Your task to perform on an android device: delete the emails in spam in the gmail app Image 0: 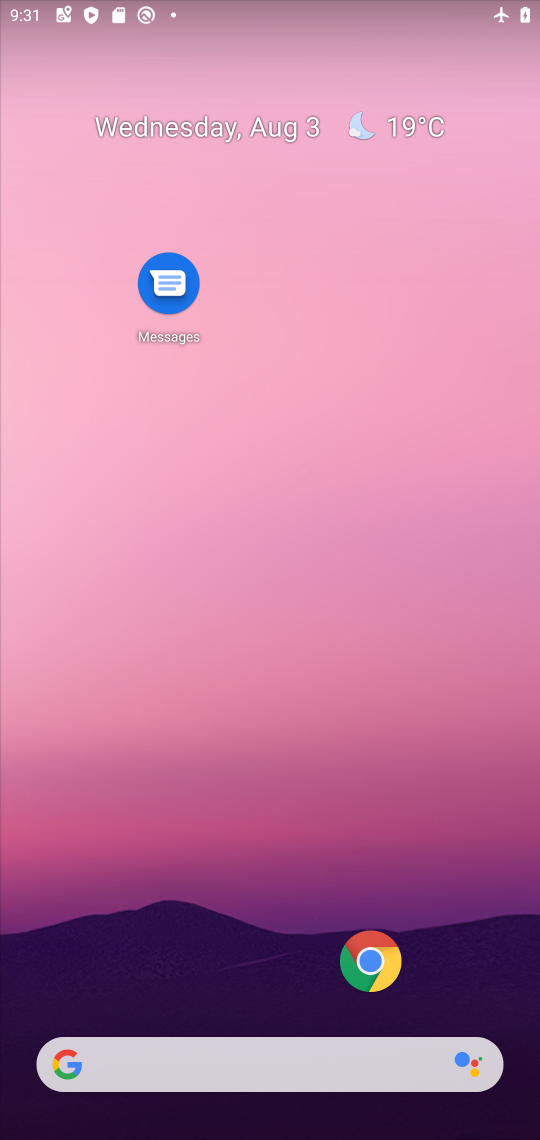
Step 0: drag from (264, 1036) to (166, 140)
Your task to perform on an android device: delete the emails in spam in the gmail app Image 1: 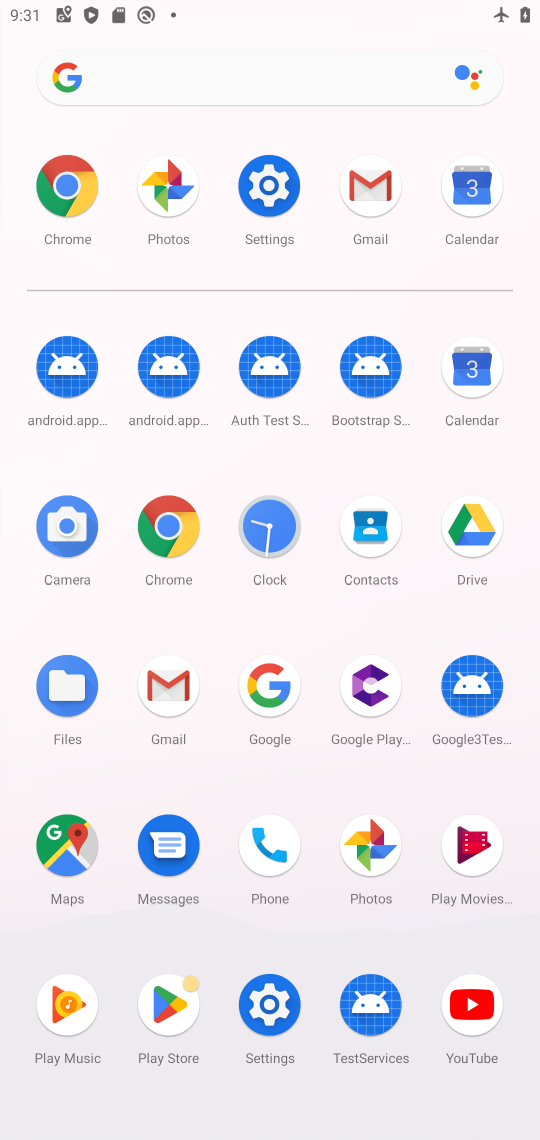
Step 1: click (166, 690)
Your task to perform on an android device: delete the emails in spam in the gmail app Image 2: 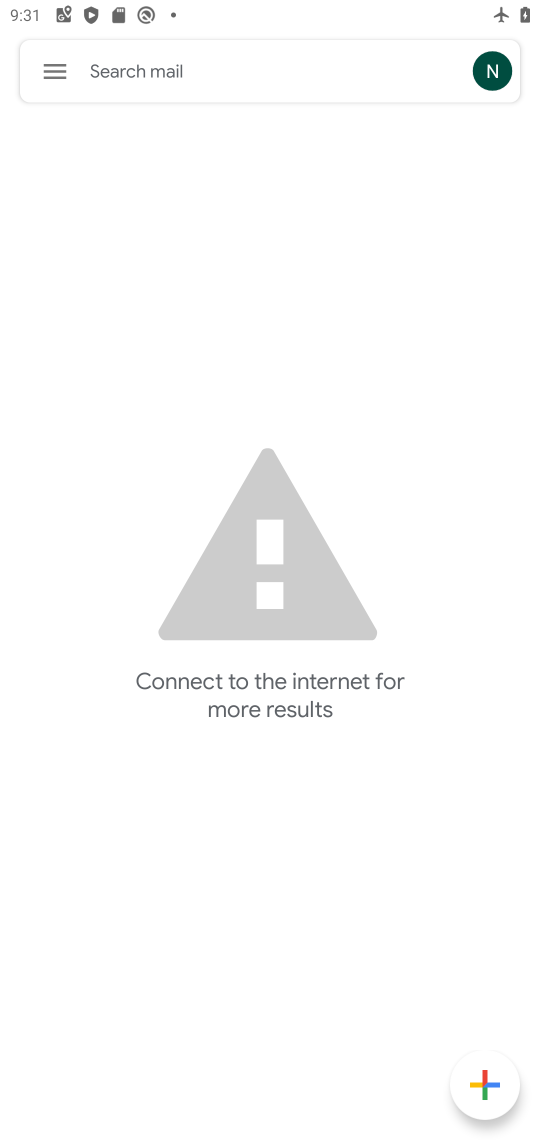
Step 2: click (54, 69)
Your task to perform on an android device: delete the emails in spam in the gmail app Image 3: 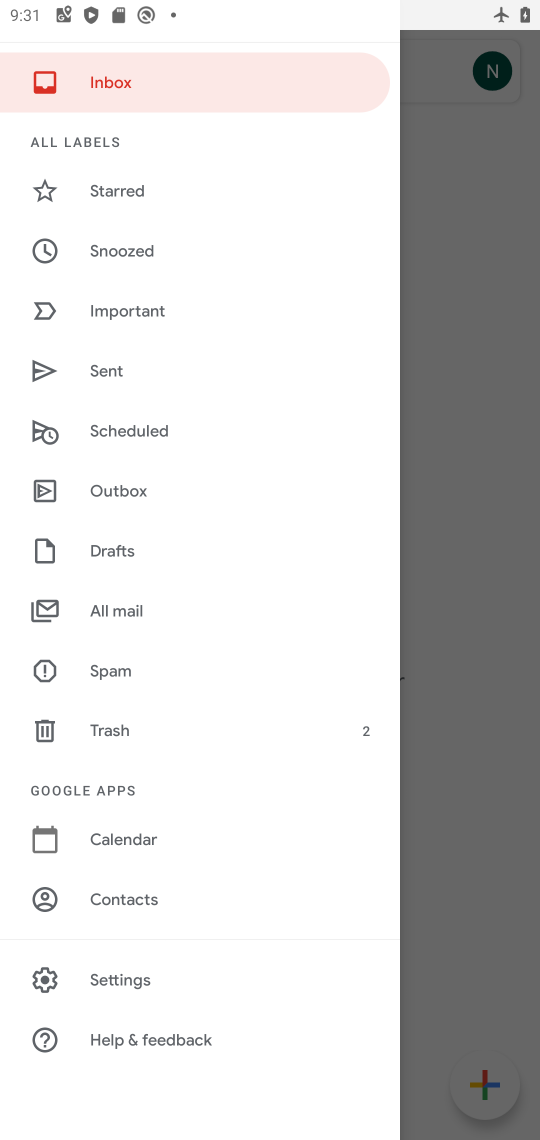
Step 3: click (116, 677)
Your task to perform on an android device: delete the emails in spam in the gmail app Image 4: 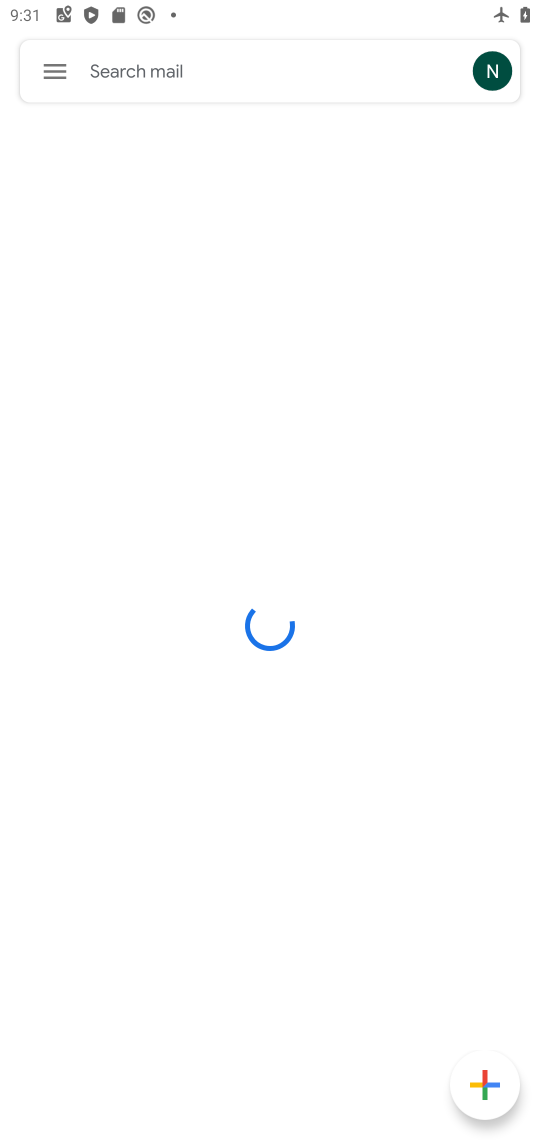
Step 4: task complete